Your task to perform on an android device: Open the calendar app, open the side menu, and click the "Day" option Image 0: 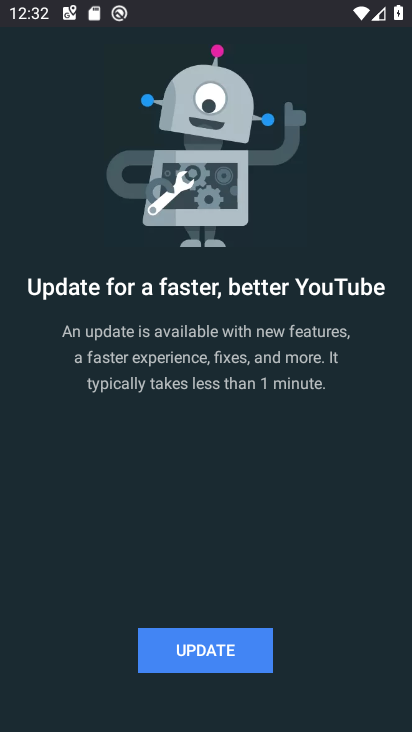
Step 0: press home button
Your task to perform on an android device: Open the calendar app, open the side menu, and click the "Day" option Image 1: 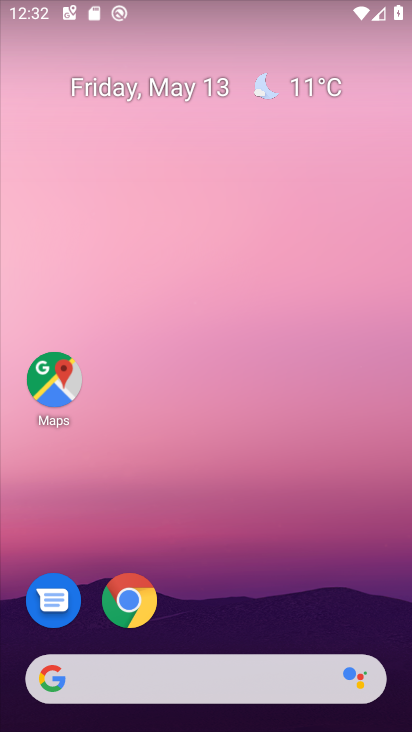
Step 1: drag from (230, 174) to (256, 84)
Your task to perform on an android device: Open the calendar app, open the side menu, and click the "Day" option Image 2: 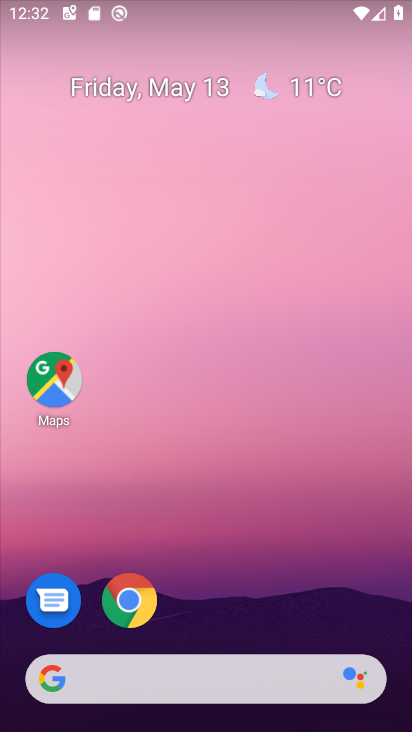
Step 2: drag from (200, 604) to (250, 49)
Your task to perform on an android device: Open the calendar app, open the side menu, and click the "Day" option Image 3: 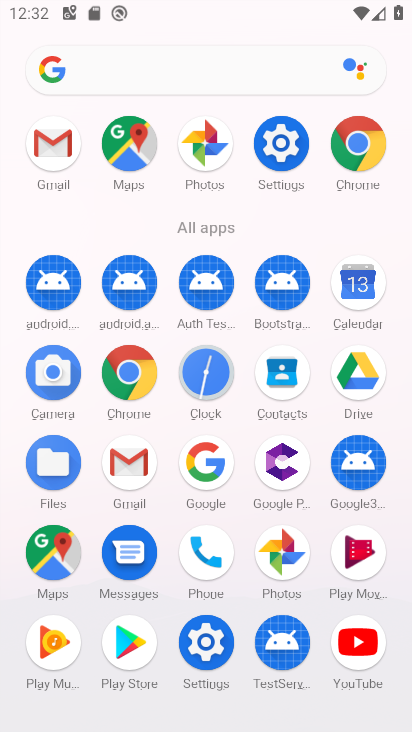
Step 3: click (346, 297)
Your task to perform on an android device: Open the calendar app, open the side menu, and click the "Day" option Image 4: 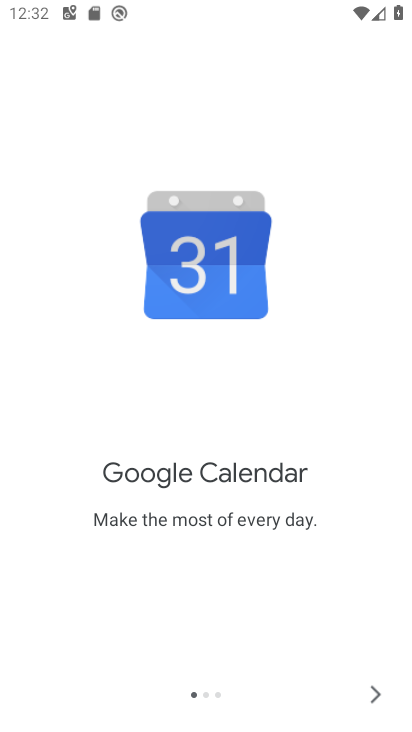
Step 4: click (373, 699)
Your task to perform on an android device: Open the calendar app, open the side menu, and click the "Day" option Image 5: 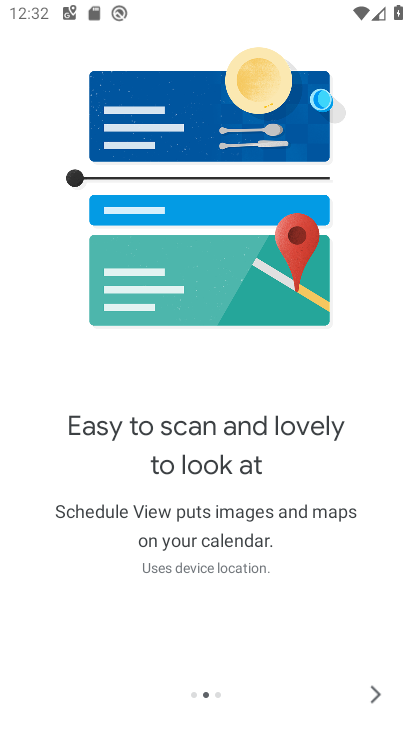
Step 5: click (373, 699)
Your task to perform on an android device: Open the calendar app, open the side menu, and click the "Day" option Image 6: 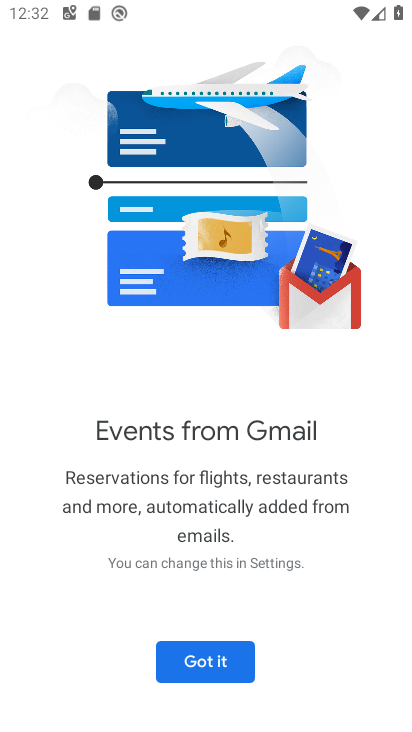
Step 6: click (193, 678)
Your task to perform on an android device: Open the calendar app, open the side menu, and click the "Day" option Image 7: 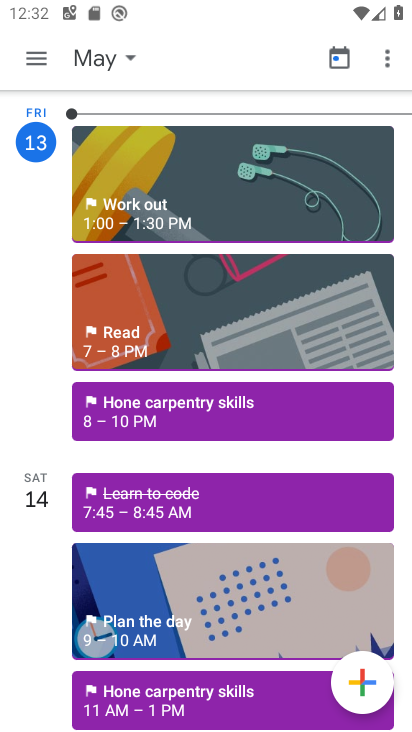
Step 7: click (42, 61)
Your task to perform on an android device: Open the calendar app, open the side menu, and click the "Day" option Image 8: 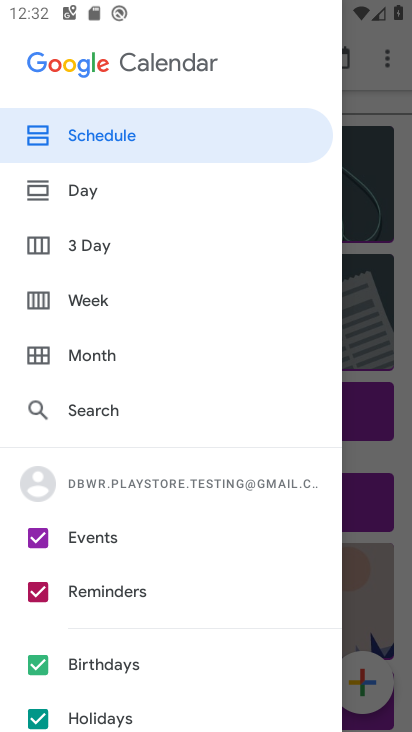
Step 8: click (113, 194)
Your task to perform on an android device: Open the calendar app, open the side menu, and click the "Day" option Image 9: 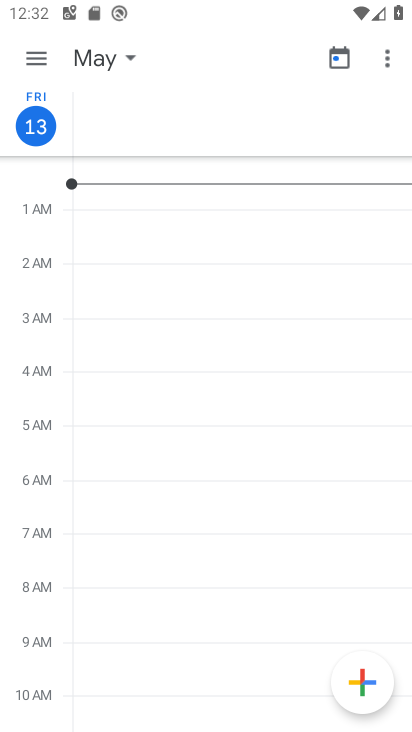
Step 9: task complete